Your task to perform on an android device: delete the emails in spam in the gmail app Image 0: 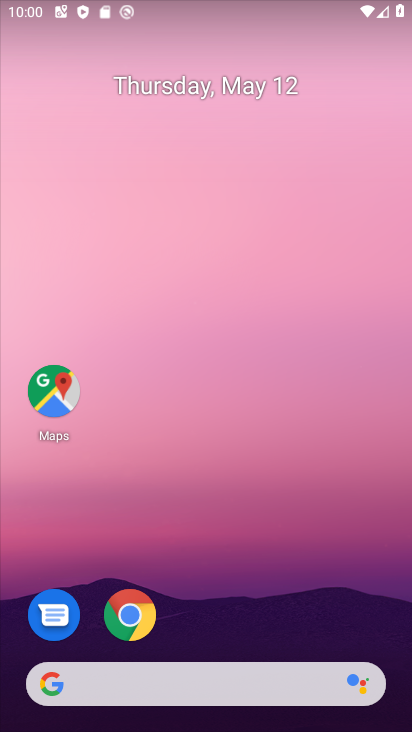
Step 0: drag from (214, 726) to (212, 139)
Your task to perform on an android device: delete the emails in spam in the gmail app Image 1: 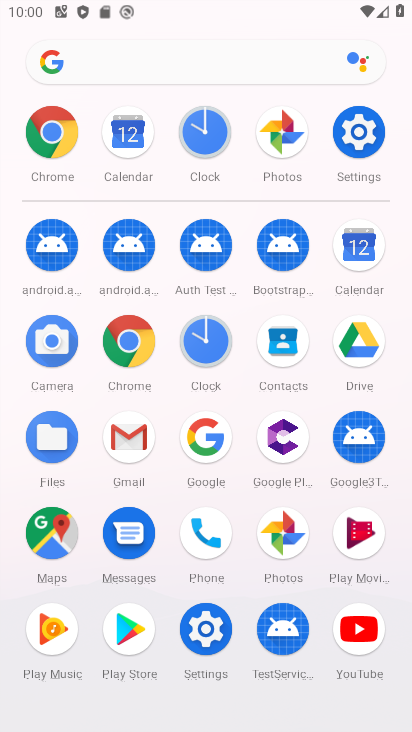
Step 1: click (129, 436)
Your task to perform on an android device: delete the emails in spam in the gmail app Image 2: 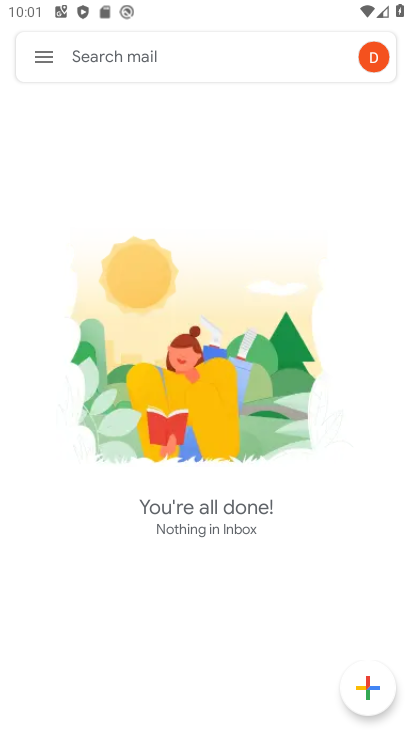
Step 2: task complete